Your task to perform on an android device: turn on improve location accuracy Image 0: 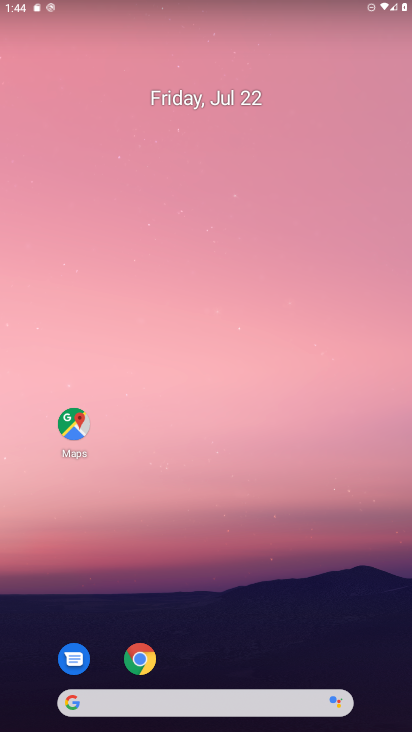
Step 0: drag from (199, 700) to (264, 219)
Your task to perform on an android device: turn on improve location accuracy Image 1: 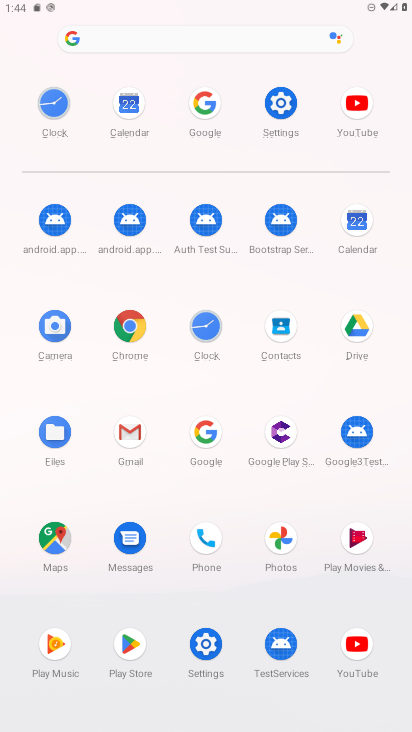
Step 1: click (279, 100)
Your task to perform on an android device: turn on improve location accuracy Image 2: 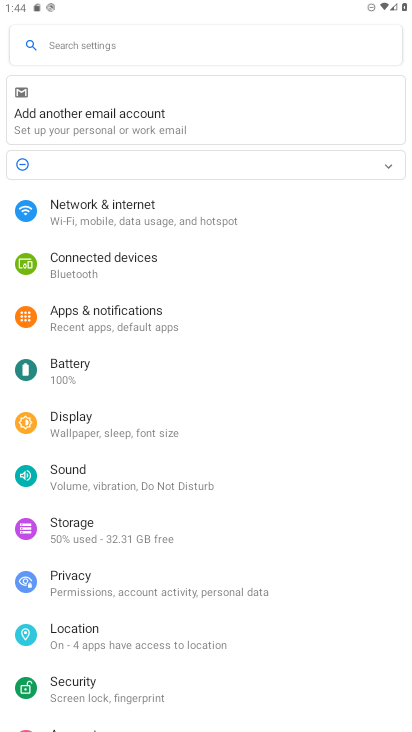
Step 2: click (145, 644)
Your task to perform on an android device: turn on improve location accuracy Image 3: 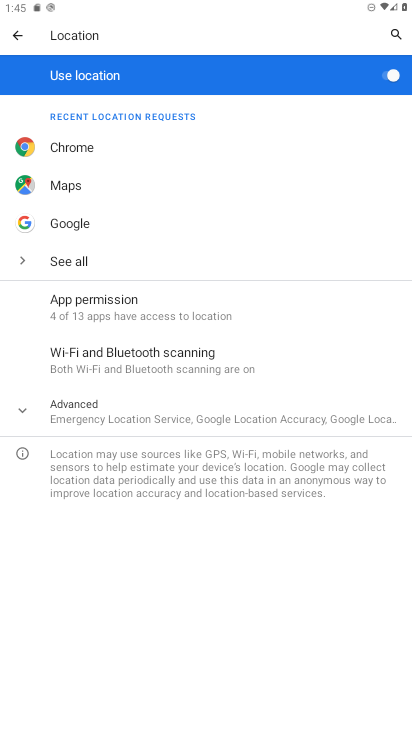
Step 3: click (167, 420)
Your task to perform on an android device: turn on improve location accuracy Image 4: 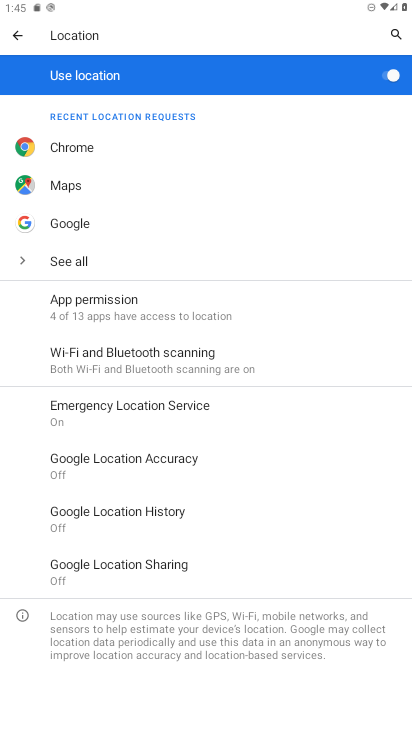
Step 4: click (139, 463)
Your task to perform on an android device: turn on improve location accuracy Image 5: 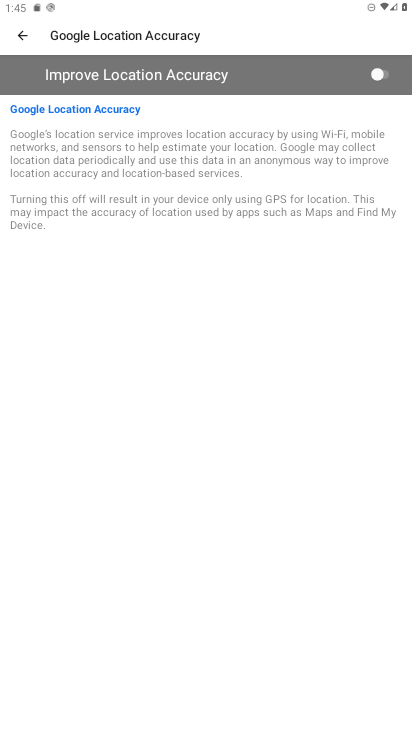
Step 5: click (380, 77)
Your task to perform on an android device: turn on improve location accuracy Image 6: 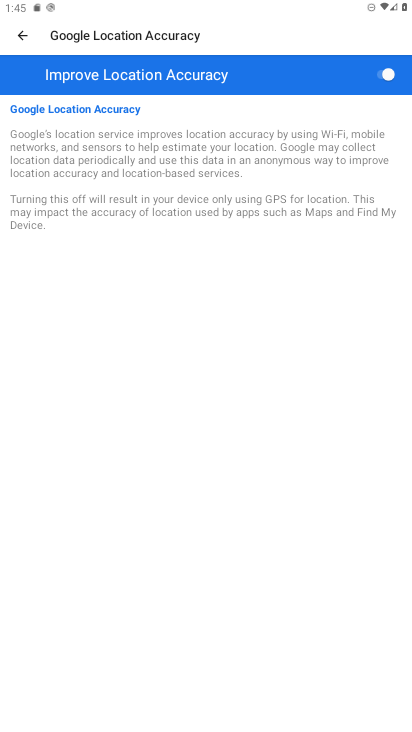
Step 6: task complete